Your task to perform on an android device: turn vacation reply on in the gmail app Image 0: 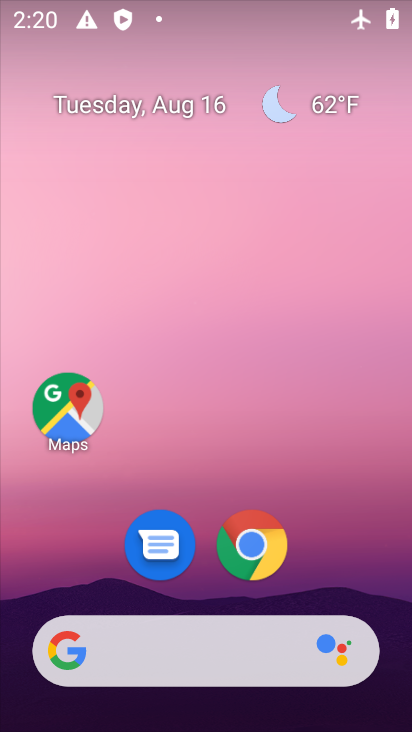
Step 0: drag from (152, 627) to (113, 82)
Your task to perform on an android device: turn vacation reply on in the gmail app Image 1: 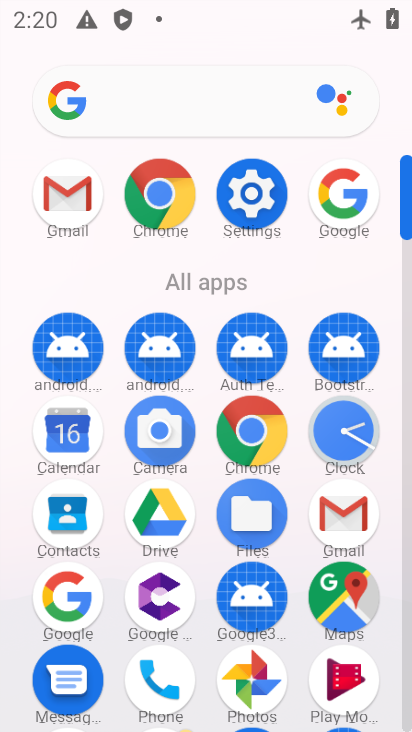
Step 1: click (73, 179)
Your task to perform on an android device: turn vacation reply on in the gmail app Image 2: 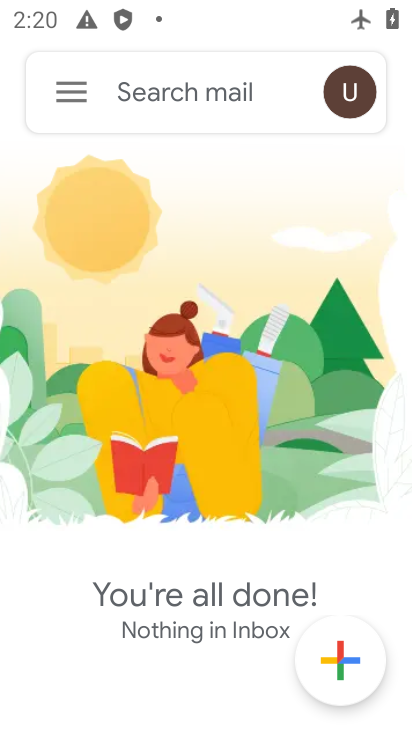
Step 2: click (71, 90)
Your task to perform on an android device: turn vacation reply on in the gmail app Image 3: 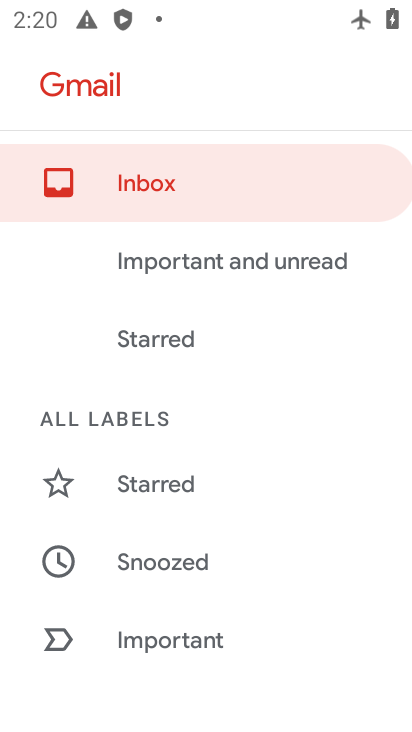
Step 3: drag from (126, 627) to (100, 253)
Your task to perform on an android device: turn vacation reply on in the gmail app Image 4: 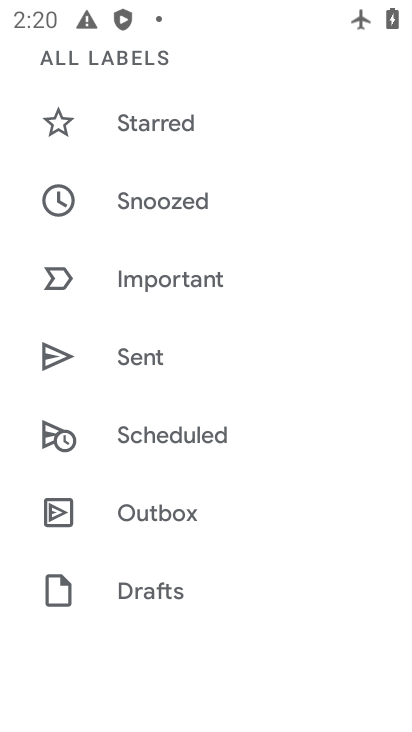
Step 4: drag from (176, 610) to (174, 277)
Your task to perform on an android device: turn vacation reply on in the gmail app Image 5: 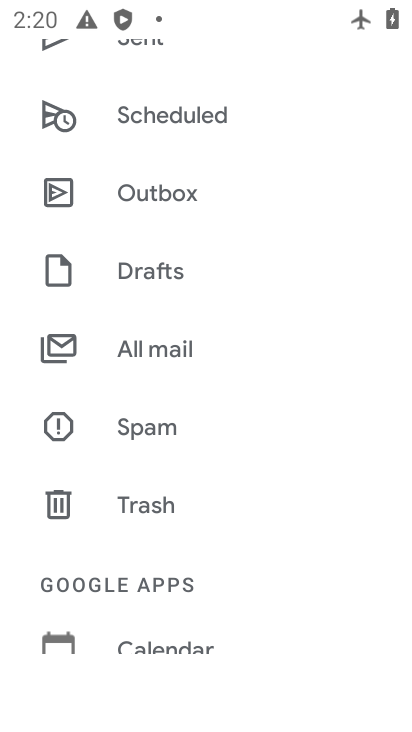
Step 5: drag from (181, 485) to (152, 291)
Your task to perform on an android device: turn vacation reply on in the gmail app Image 6: 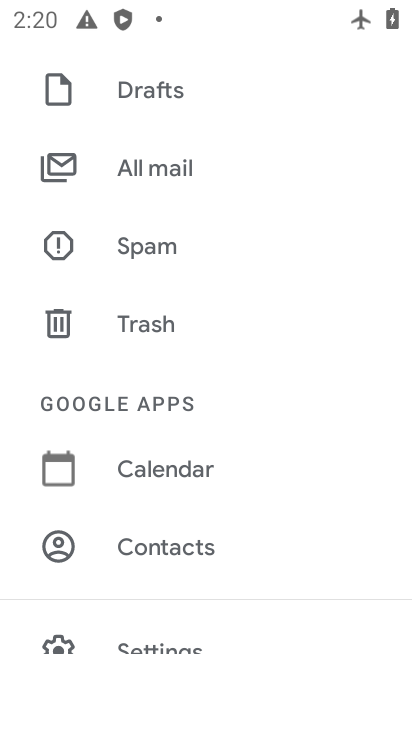
Step 6: click (179, 650)
Your task to perform on an android device: turn vacation reply on in the gmail app Image 7: 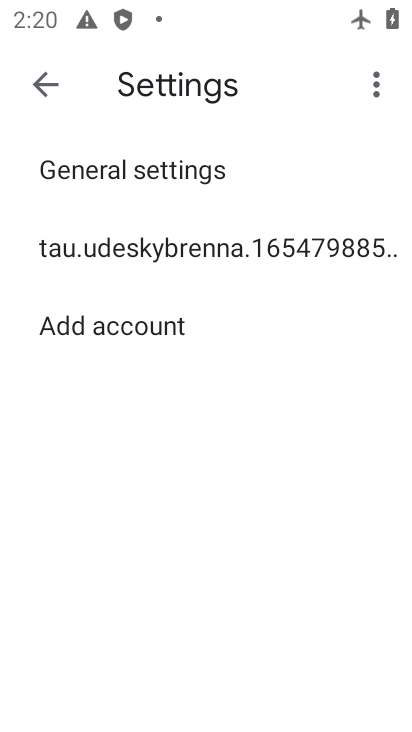
Step 7: click (91, 230)
Your task to perform on an android device: turn vacation reply on in the gmail app Image 8: 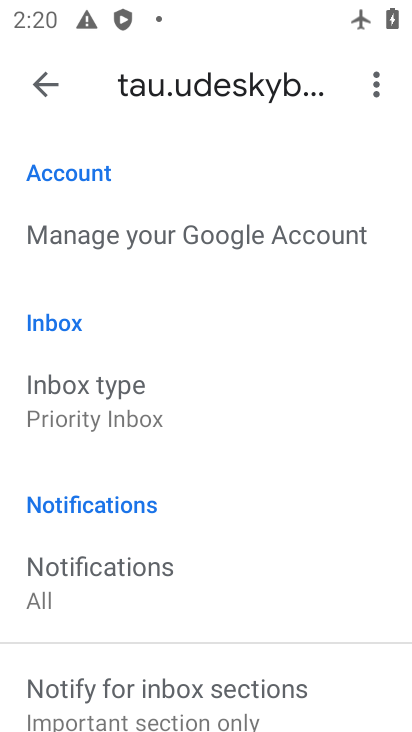
Step 8: drag from (157, 683) to (142, 303)
Your task to perform on an android device: turn vacation reply on in the gmail app Image 9: 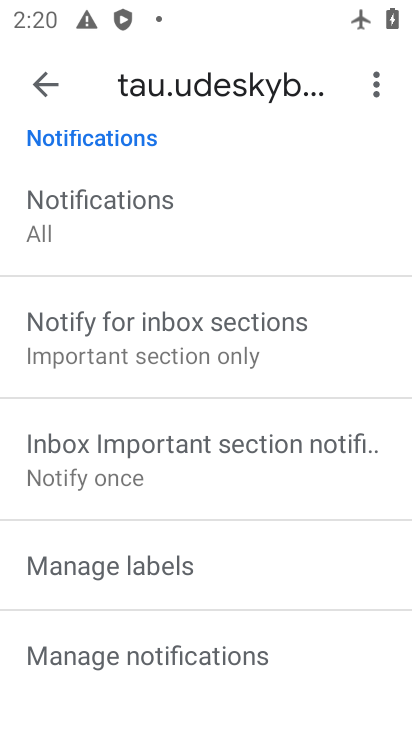
Step 9: drag from (124, 640) to (120, 301)
Your task to perform on an android device: turn vacation reply on in the gmail app Image 10: 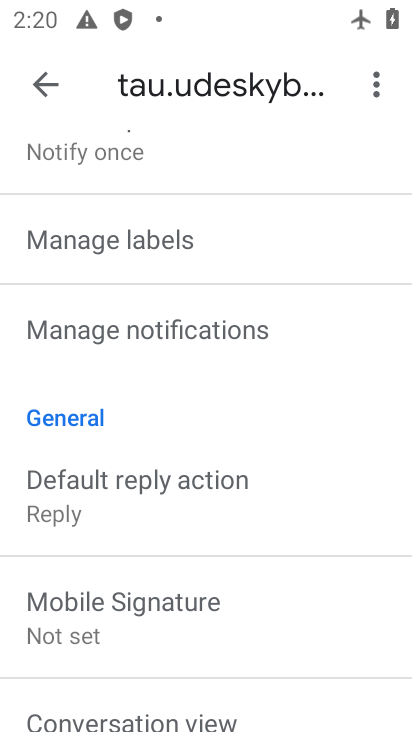
Step 10: drag from (136, 691) to (109, 383)
Your task to perform on an android device: turn vacation reply on in the gmail app Image 11: 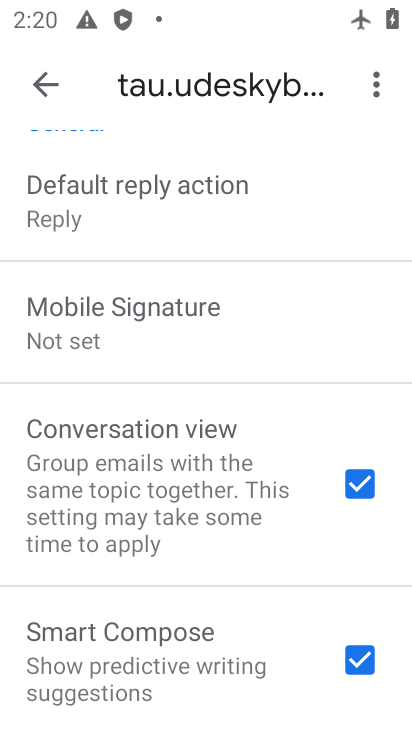
Step 11: drag from (153, 666) to (153, 282)
Your task to perform on an android device: turn vacation reply on in the gmail app Image 12: 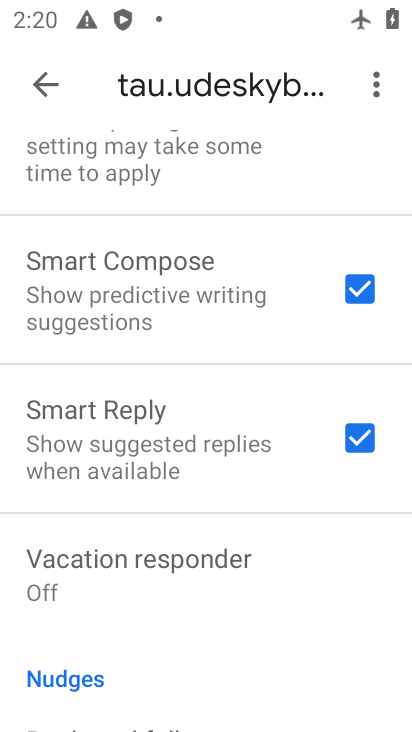
Step 12: click (73, 576)
Your task to perform on an android device: turn vacation reply on in the gmail app Image 13: 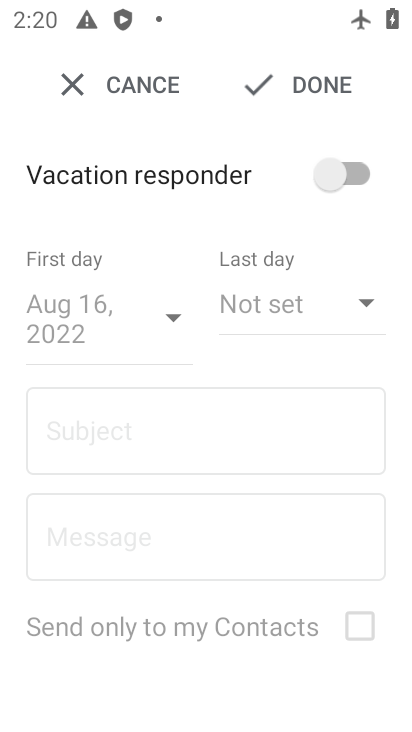
Step 13: click (353, 173)
Your task to perform on an android device: turn vacation reply on in the gmail app Image 14: 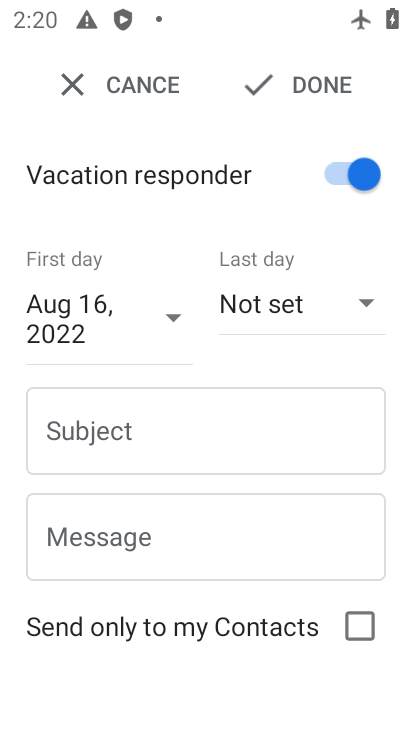
Step 14: click (308, 65)
Your task to perform on an android device: turn vacation reply on in the gmail app Image 15: 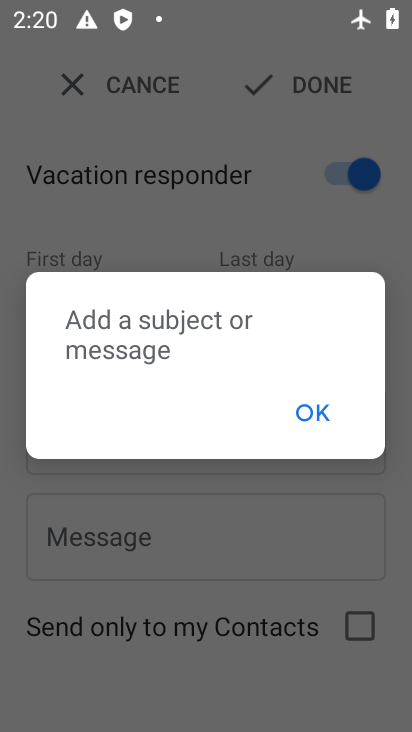
Step 15: click (312, 424)
Your task to perform on an android device: turn vacation reply on in the gmail app Image 16: 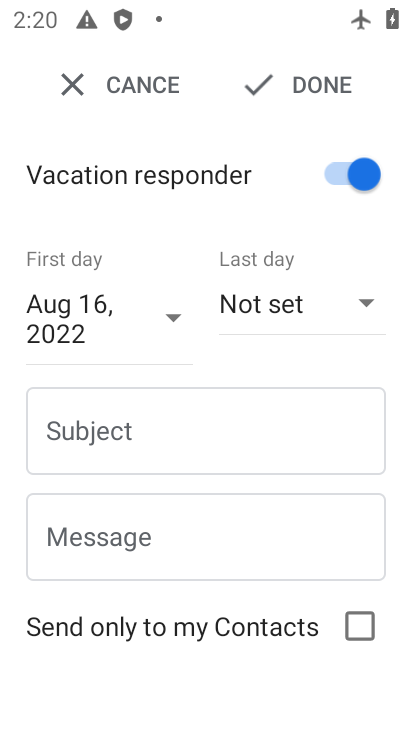
Step 16: task complete